Your task to perform on an android device: see sites visited before in the chrome app Image 0: 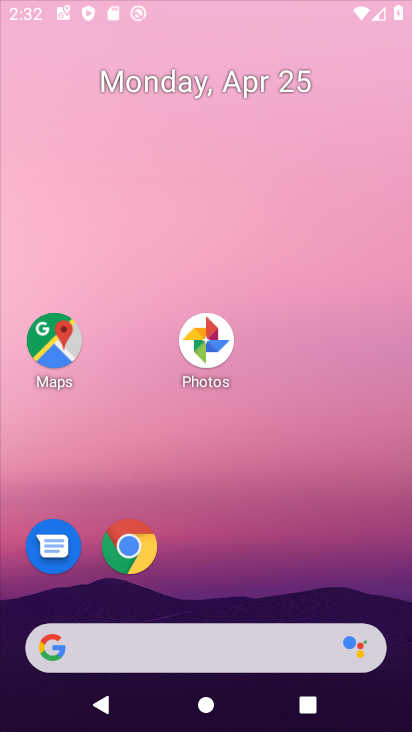
Step 0: drag from (329, 213) to (256, 173)
Your task to perform on an android device: see sites visited before in the chrome app Image 1: 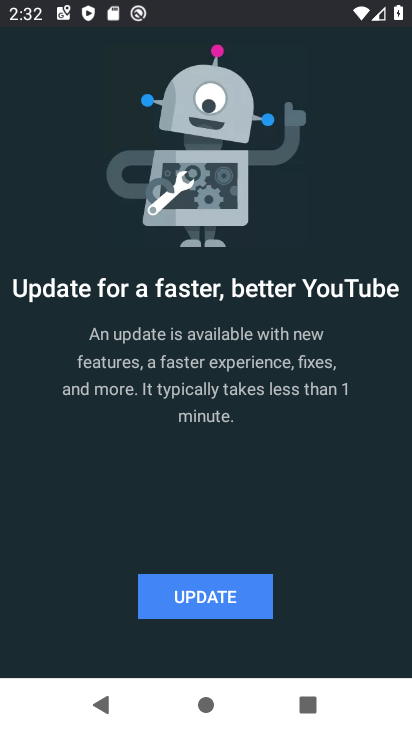
Step 1: press back button
Your task to perform on an android device: see sites visited before in the chrome app Image 2: 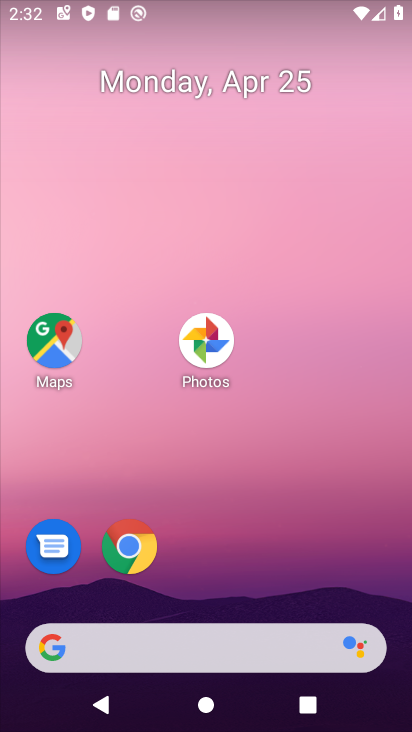
Step 2: drag from (297, 532) to (379, 178)
Your task to perform on an android device: see sites visited before in the chrome app Image 3: 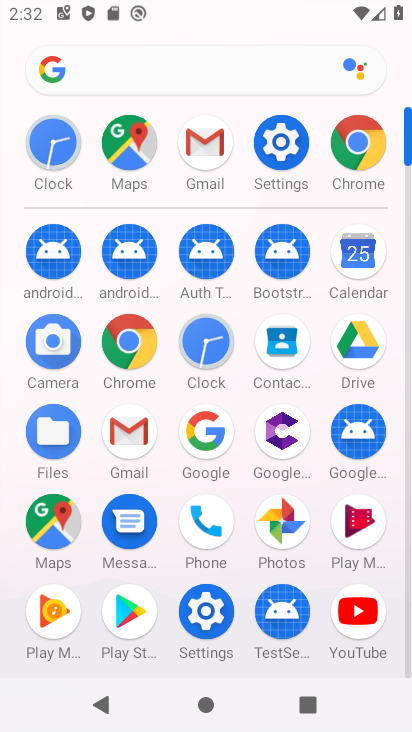
Step 3: click (131, 338)
Your task to perform on an android device: see sites visited before in the chrome app Image 4: 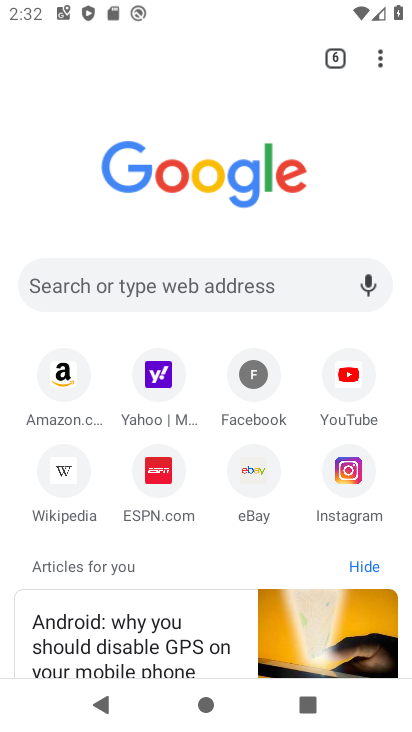
Step 4: click (385, 61)
Your task to perform on an android device: see sites visited before in the chrome app Image 5: 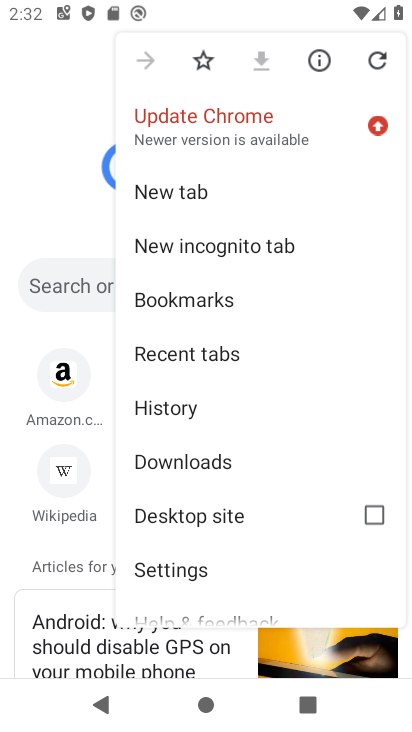
Step 5: click (167, 415)
Your task to perform on an android device: see sites visited before in the chrome app Image 6: 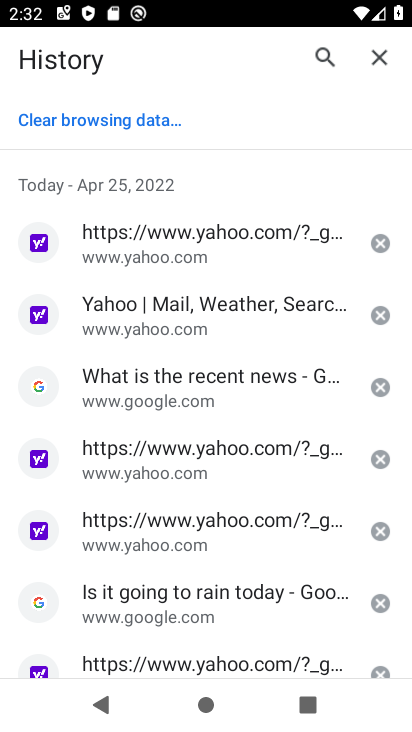
Step 6: task complete